Your task to perform on an android device: check data usage Image 0: 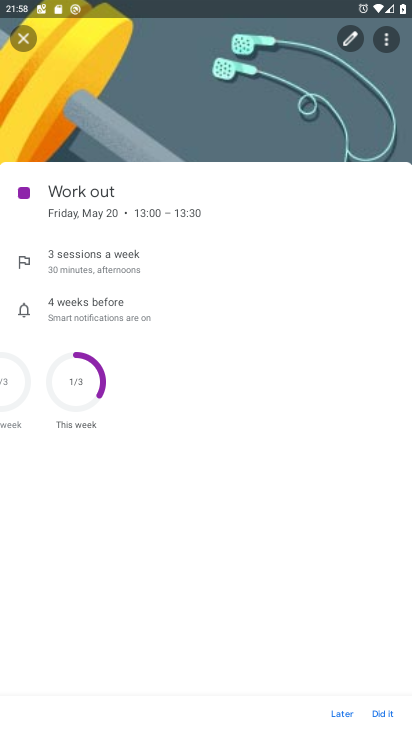
Step 0: press home button
Your task to perform on an android device: check data usage Image 1: 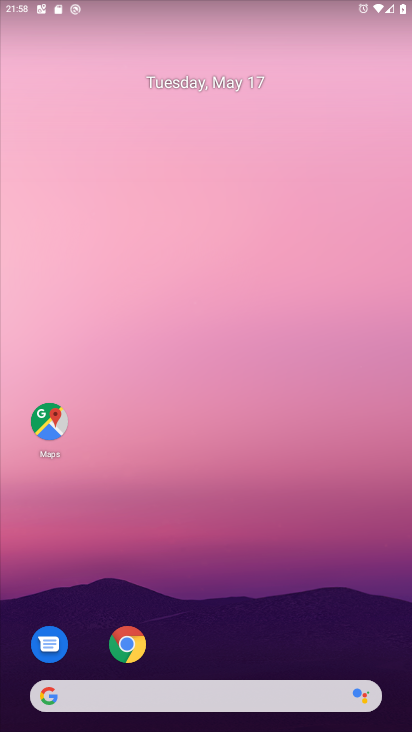
Step 1: drag from (208, 664) to (239, 65)
Your task to perform on an android device: check data usage Image 2: 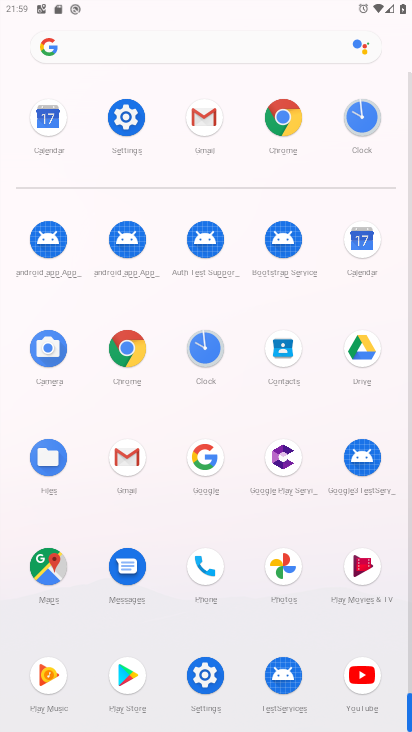
Step 2: click (124, 114)
Your task to perform on an android device: check data usage Image 3: 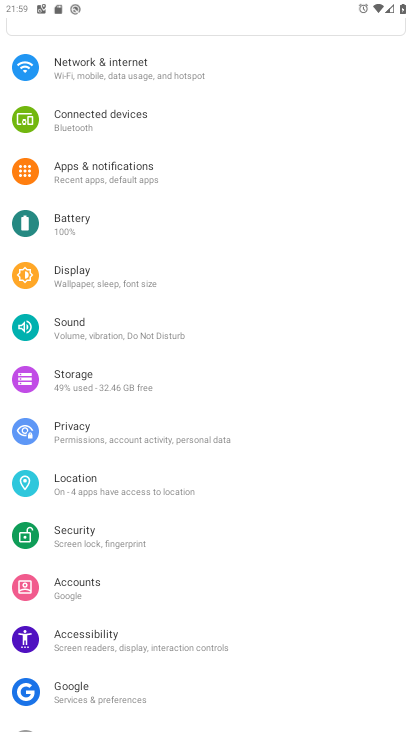
Step 3: click (159, 66)
Your task to perform on an android device: check data usage Image 4: 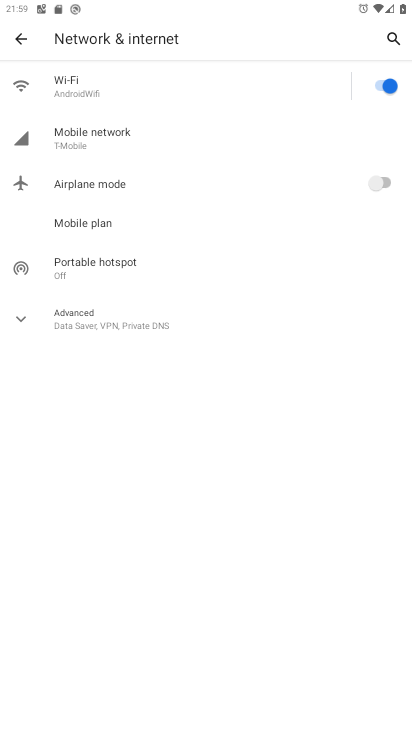
Step 4: click (117, 142)
Your task to perform on an android device: check data usage Image 5: 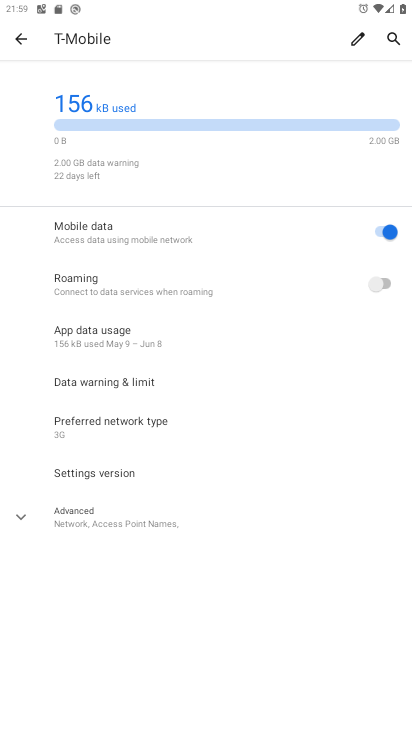
Step 5: click (150, 330)
Your task to perform on an android device: check data usage Image 6: 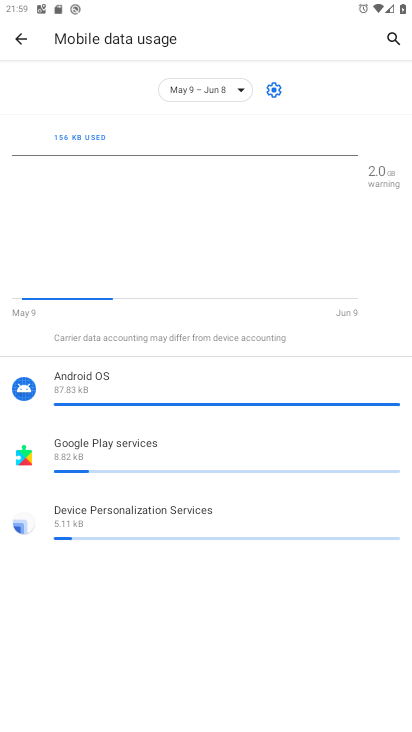
Step 6: task complete